Your task to perform on an android device: View the shopping cart on amazon. Add "macbook" to the cart on amazon, then select checkout. Image 0: 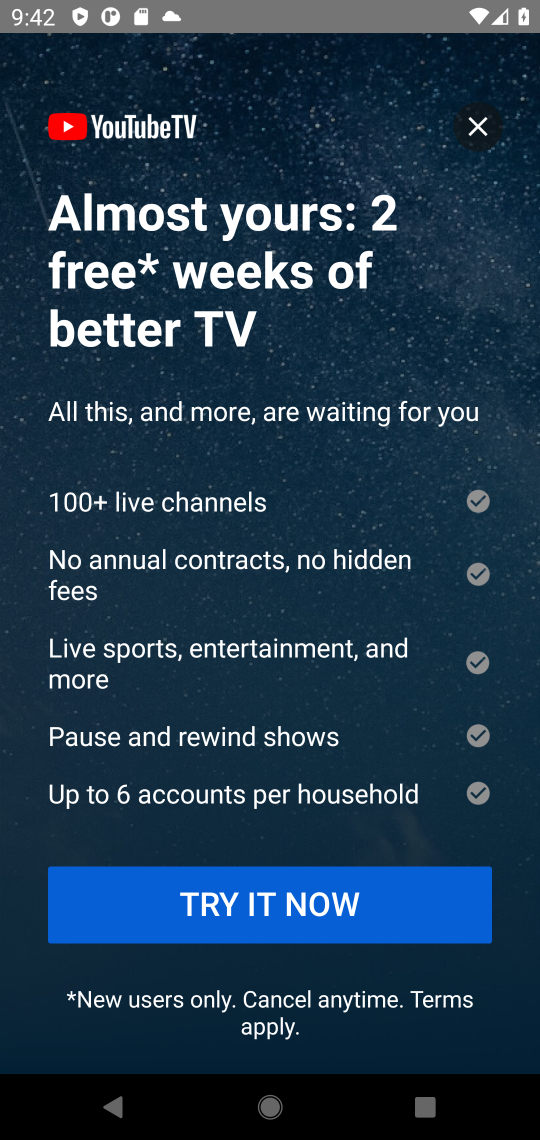
Step 0: task complete